Your task to perform on an android device: turn off picture-in-picture Image 0: 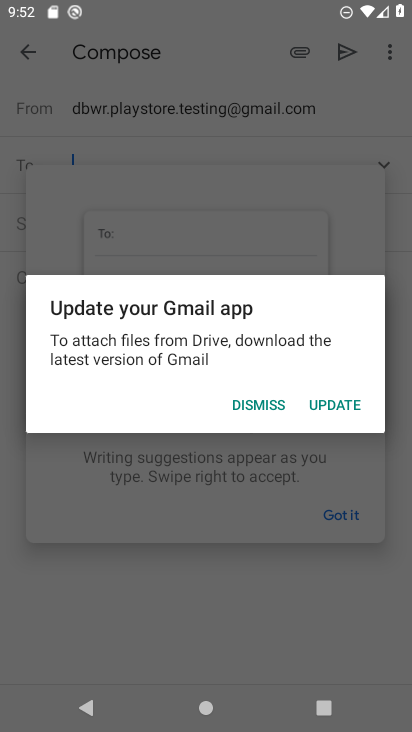
Step 0: press home button
Your task to perform on an android device: turn off picture-in-picture Image 1: 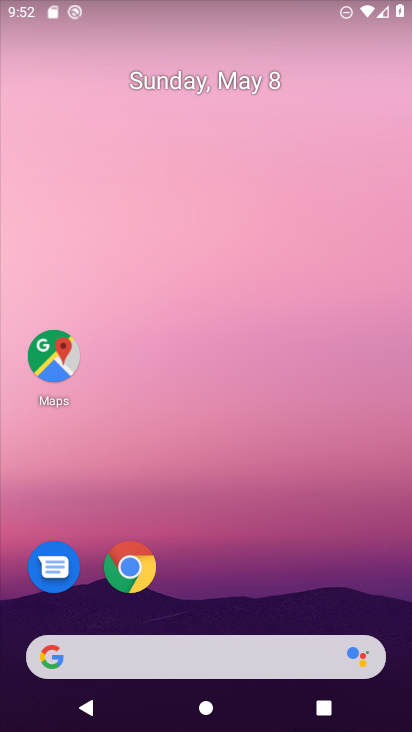
Step 1: click (135, 569)
Your task to perform on an android device: turn off picture-in-picture Image 2: 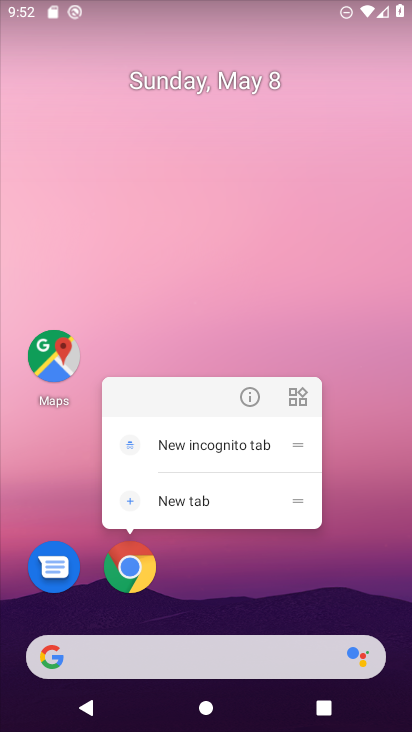
Step 2: click (257, 397)
Your task to perform on an android device: turn off picture-in-picture Image 3: 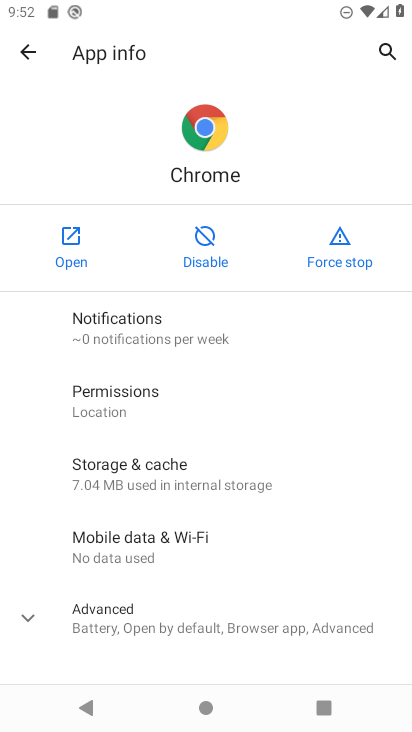
Step 3: click (111, 617)
Your task to perform on an android device: turn off picture-in-picture Image 4: 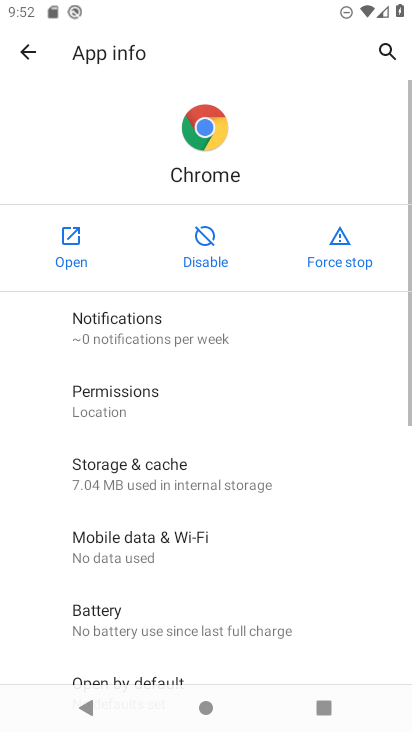
Step 4: drag from (141, 658) to (110, 305)
Your task to perform on an android device: turn off picture-in-picture Image 5: 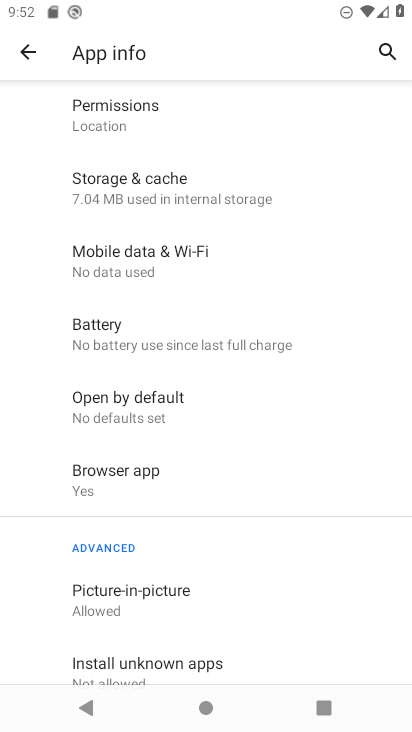
Step 5: drag from (128, 663) to (136, 370)
Your task to perform on an android device: turn off picture-in-picture Image 6: 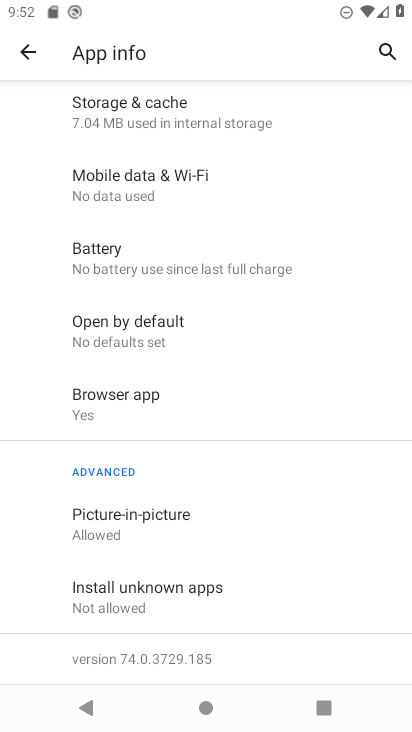
Step 6: click (117, 521)
Your task to perform on an android device: turn off picture-in-picture Image 7: 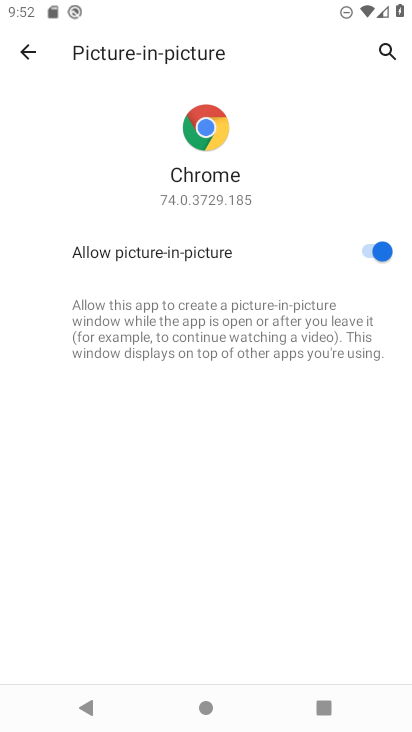
Step 7: click (365, 251)
Your task to perform on an android device: turn off picture-in-picture Image 8: 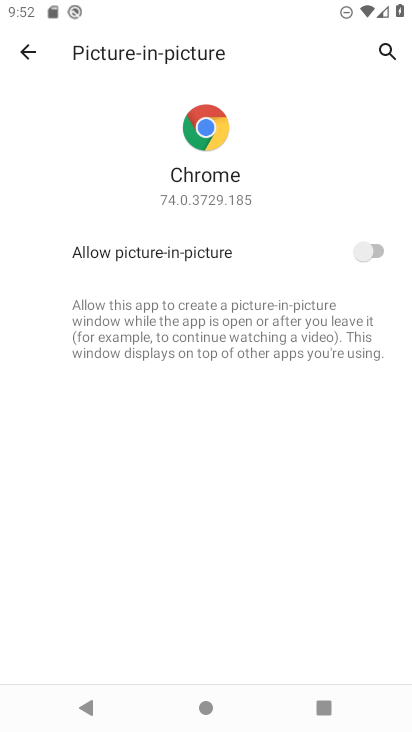
Step 8: task complete